Your task to perform on an android device: Go to Amazon Image 0: 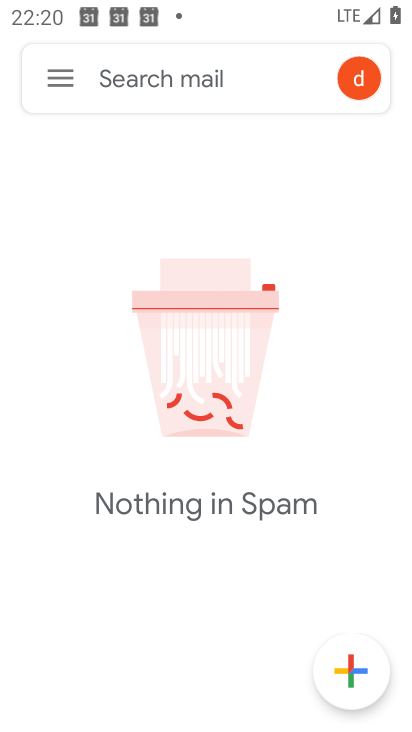
Step 0: press home button
Your task to perform on an android device: Go to Amazon Image 1: 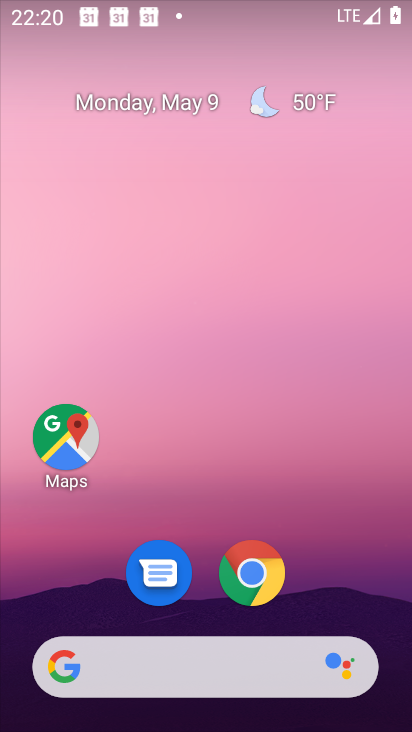
Step 1: click (250, 573)
Your task to perform on an android device: Go to Amazon Image 2: 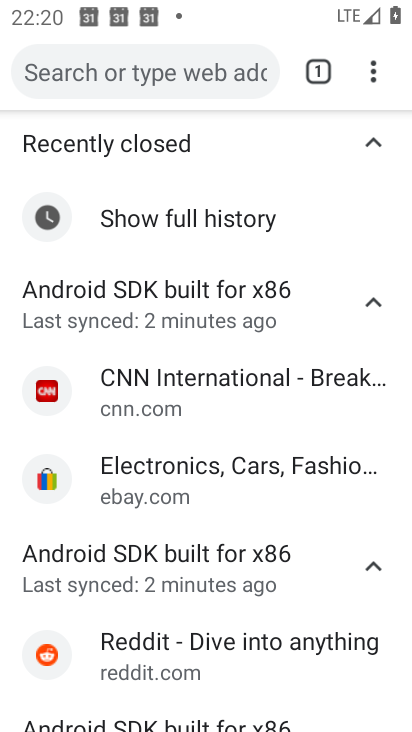
Step 2: click (224, 69)
Your task to perform on an android device: Go to Amazon Image 3: 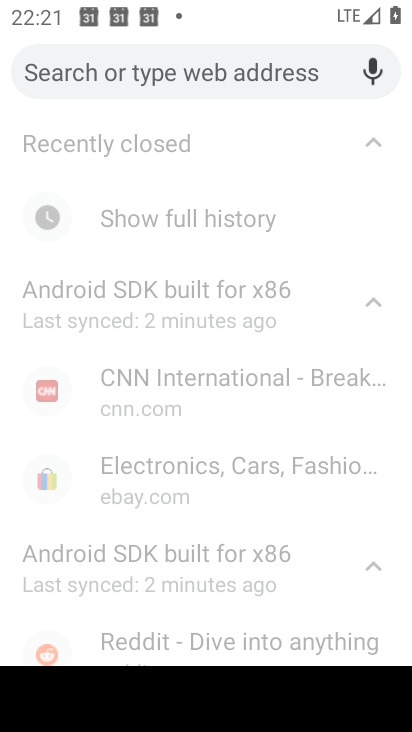
Step 3: type "amazon"
Your task to perform on an android device: Go to Amazon Image 4: 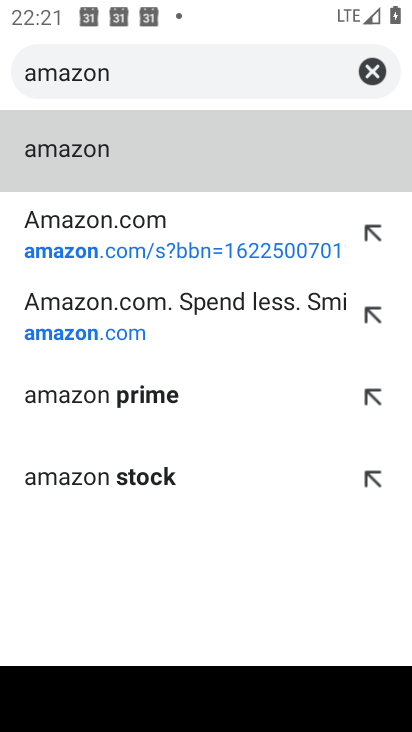
Step 4: click (84, 146)
Your task to perform on an android device: Go to Amazon Image 5: 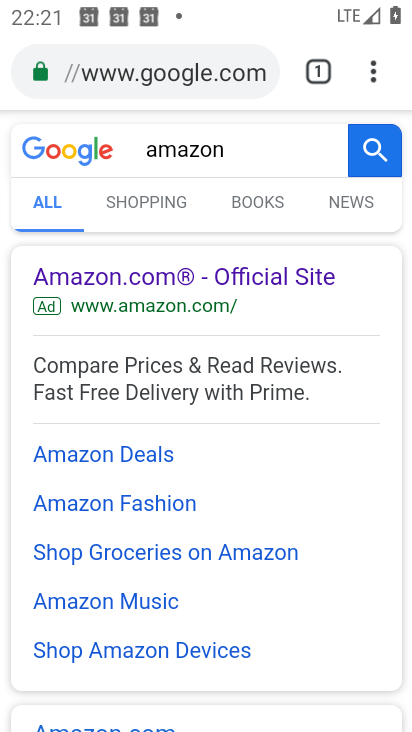
Step 5: drag from (206, 562) to (270, 71)
Your task to perform on an android device: Go to Amazon Image 6: 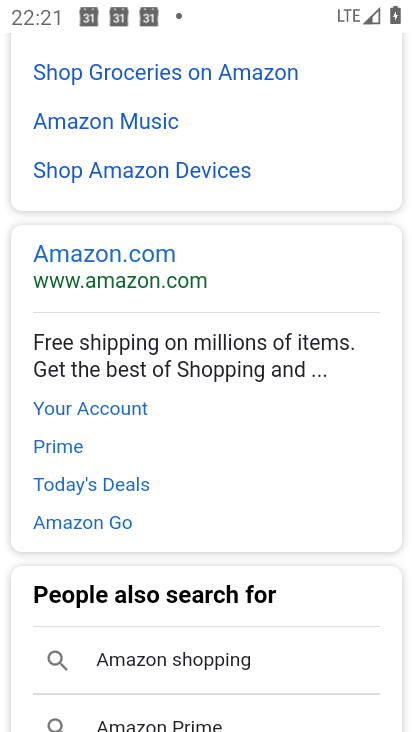
Step 6: click (99, 246)
Your task to perform on an android device: Go to Amazon Image 7: 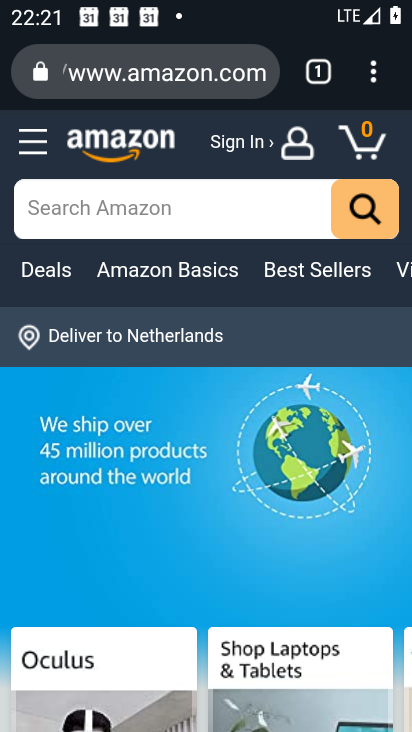
Step 7: task complete